Your task to perform on an android device: Go to privacy settings Image 0: 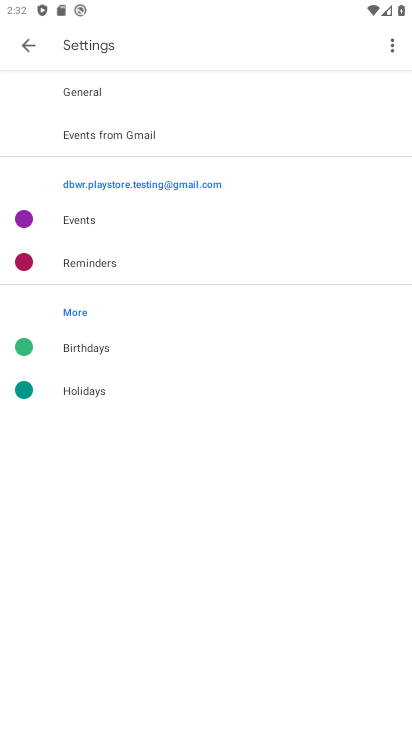
Step 0: press home button
Your task to perform on an android device: Go to privacy settings Image 1: 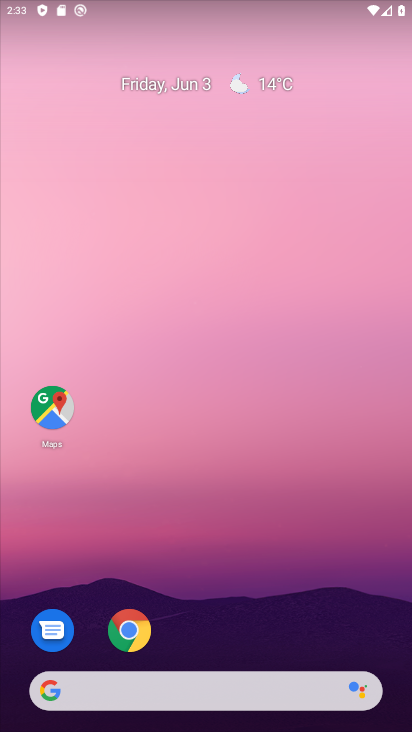
Step 1: drag from (228, 631) to (144, 176)
Your task to perform on an android device: Go to privacy settings Image 2: 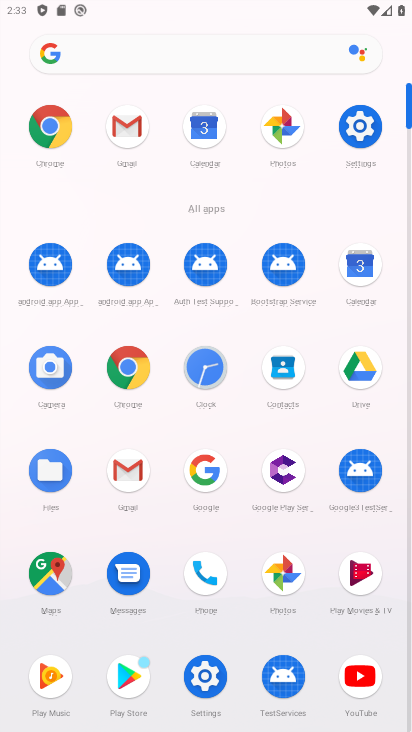
Step 2: click (360, 128)
Your task to perform on an android device: Go to privacy settings Image 3: 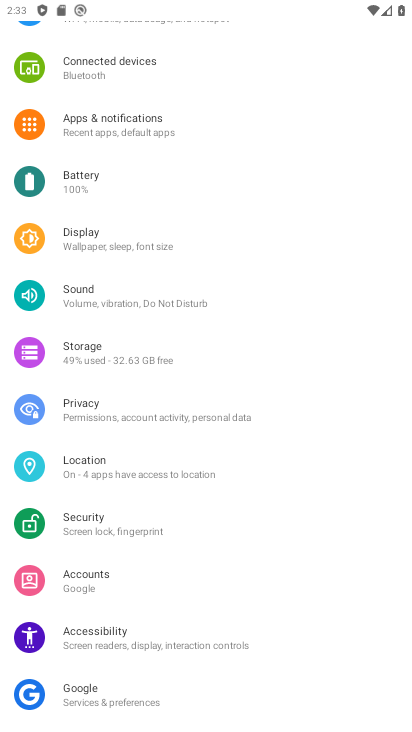
Step 3: click (204, 408)
Your task to perform on an android device: Go to privacy settings Image 4: 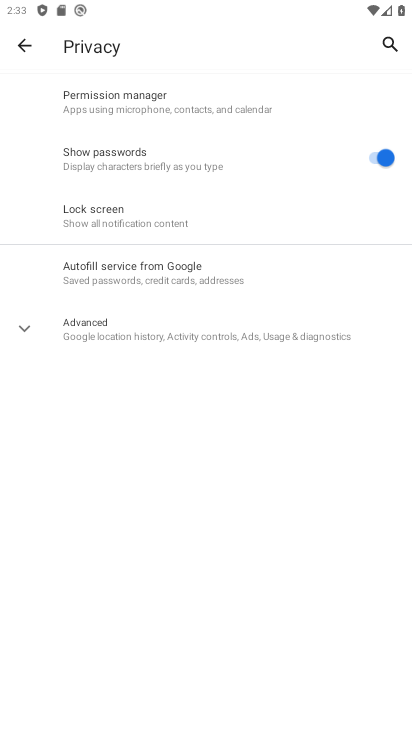
Step 4: task complete